Your task to perform on an android device: Check the weather Image 0: 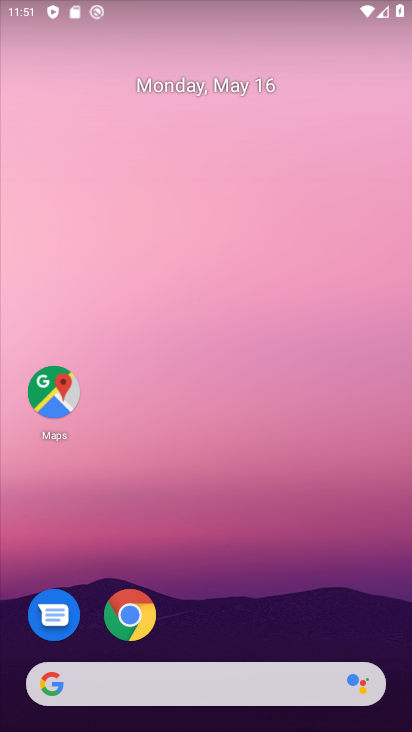
Step 0: click (149, 698)
Your task to perform on an android device: Check the weather Image 1: 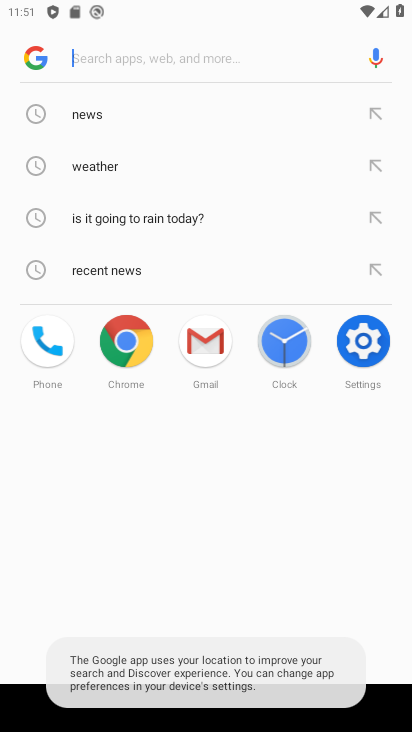
Step 1: click (162, 160)
Your task to perform on an android device: Check the weather Image 2: 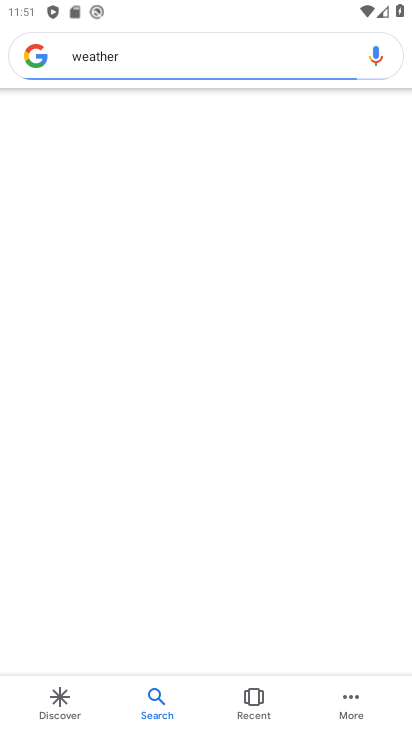
Step 2: task complete